Your task to perform on an android device: clear all cookies in the chrome app Image 0: 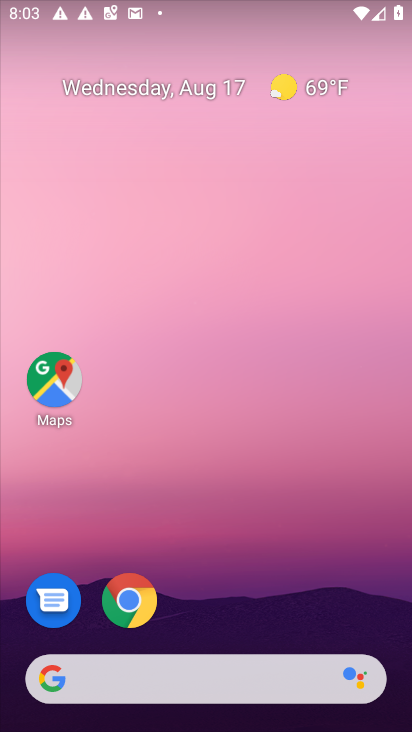
Step 0: press home button
Your task to perform on an android device: clear all cookies in the chrome app Image 1: 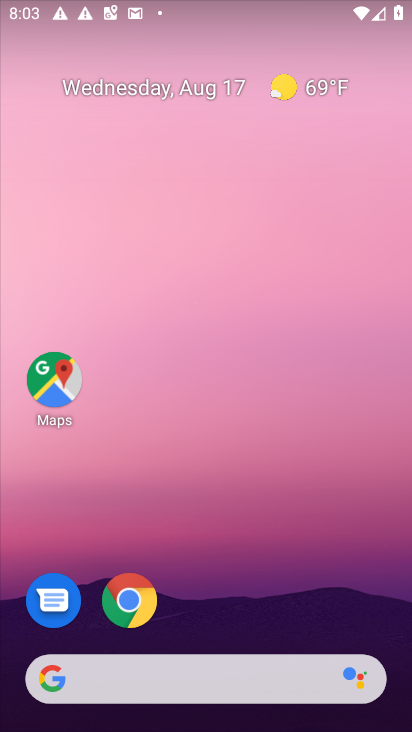
Step 1: click (128, 600)
Your task to perform on an android device: clear all cookies in the chrome app Image 2: 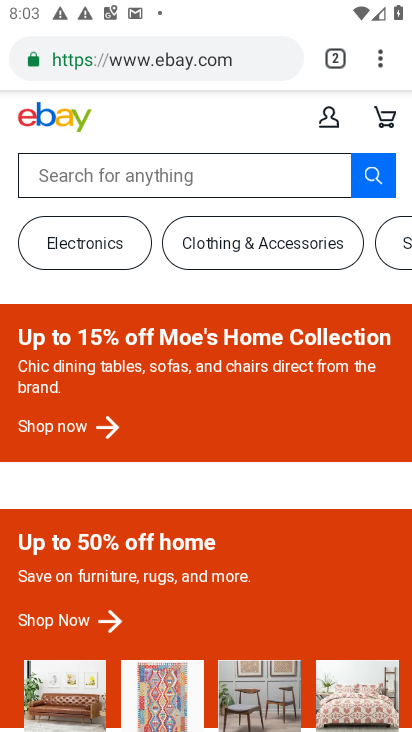
Step 2: drag from (371, 55) to (199, 614)
Your task to perform on an android device: clear all cookies in the chrome app Image 3: 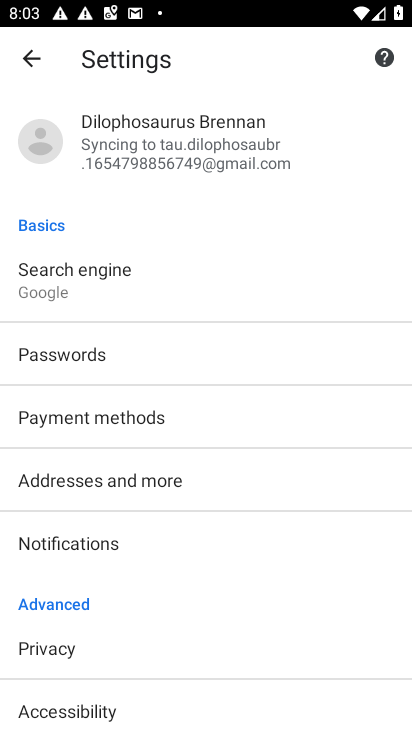
Step 3: click (84, 645)
Your task to perform on an android device: clear all cookies in the chrome app Image 4: 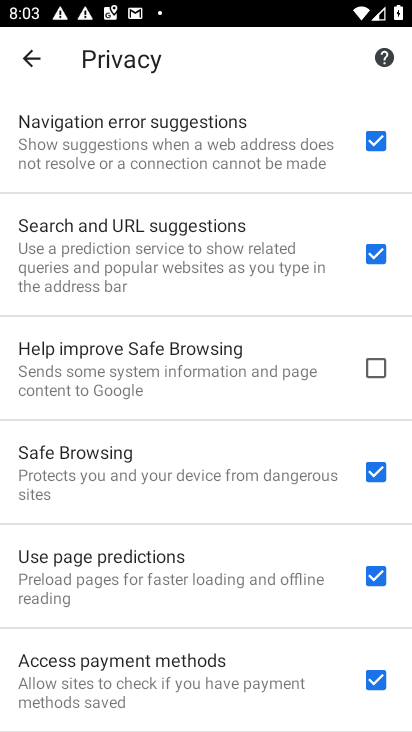
Step 4: drag from (189, 662) to (217, 341)
Your task to perform on an android device: clear all cookies in the chrome app Image 5: 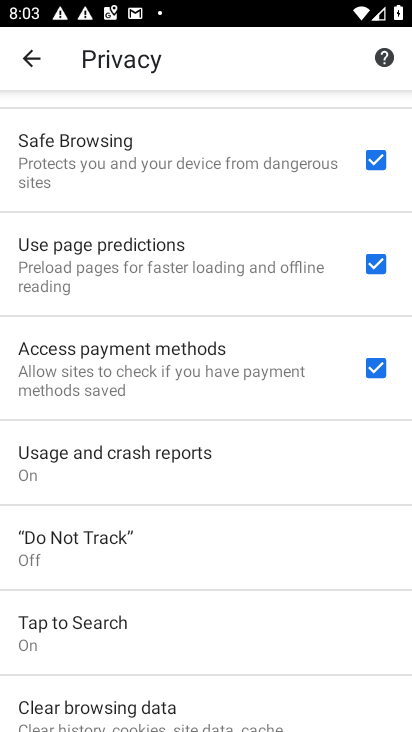
Step 5: click (146, 700)
Your task to perform on an android device: clear all cookies in the chrome app Image 6: 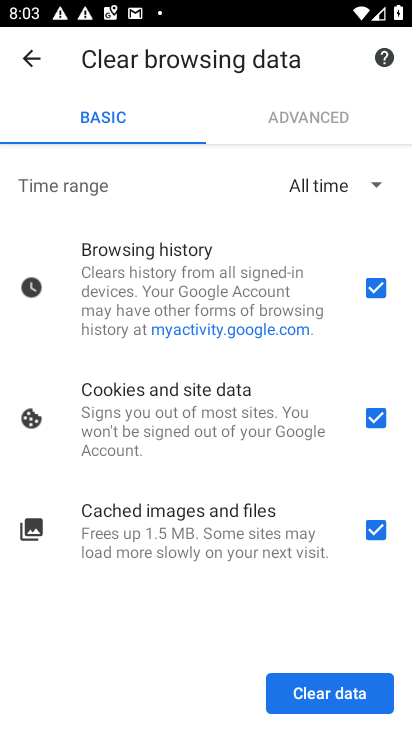
Step 6: click (375, 289)
Your task to perform on an android device: clear all cookies in the chrome app Image 7: 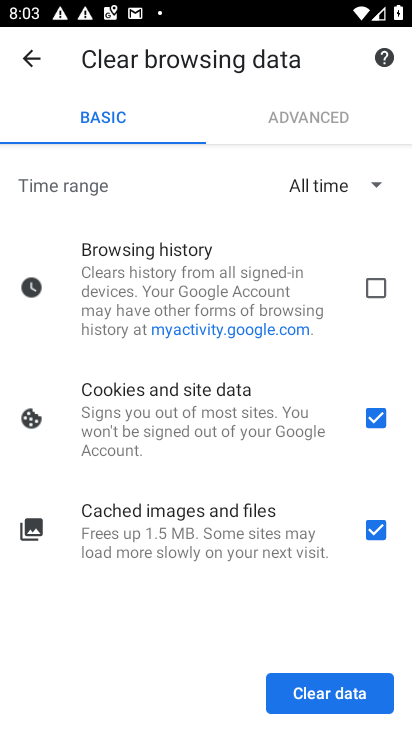
Step 7: click (388, 528)
Your task to perform on an android device: clear all cookies in the chrome app Image 8: 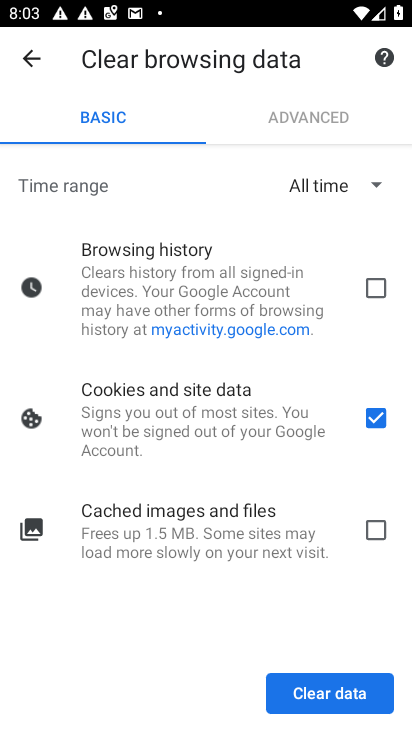
Step 8: click (338, 678)
Your task to perform on an android device: clear all cookies in the chrome app Image 9: 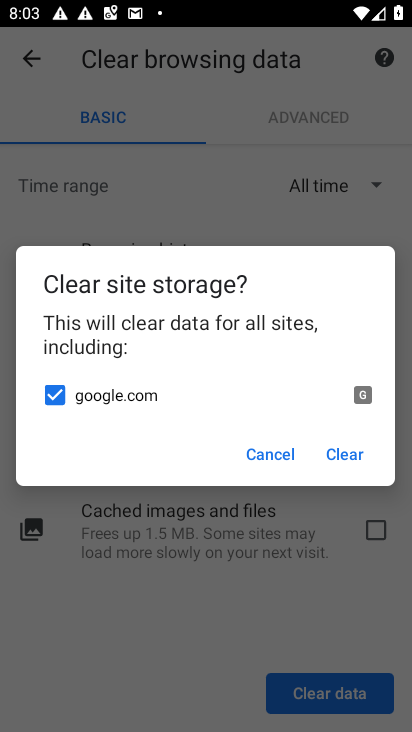
Step 9: click (347, 452)
Your task to perform on an android device: clear all cookies in the chrome app Image 10: 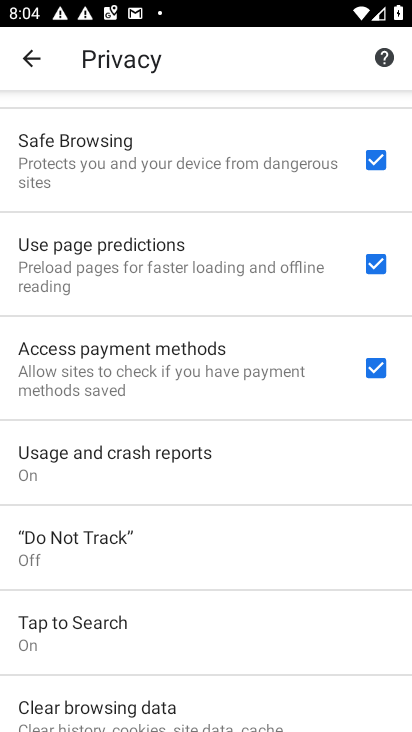
Step 10: task complete